Your task to perform on an android device: Open calendar and show me the fourth week of next month Image 0: 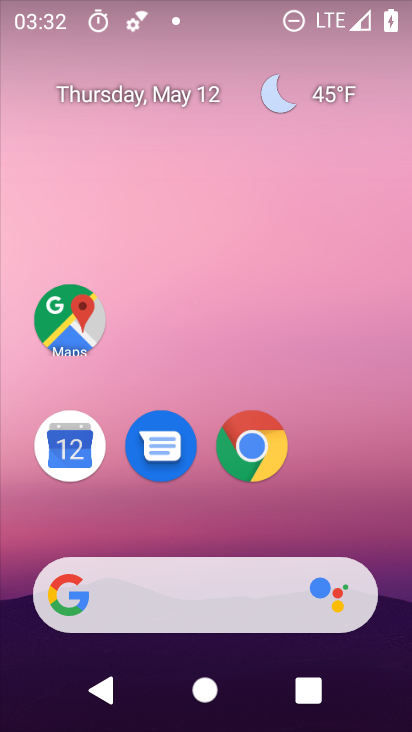
Step 0: drag from (239, 526) to (251, 168)
Your task to perform on an android device: Open calendar and show me the fourth week of next month Image 1: 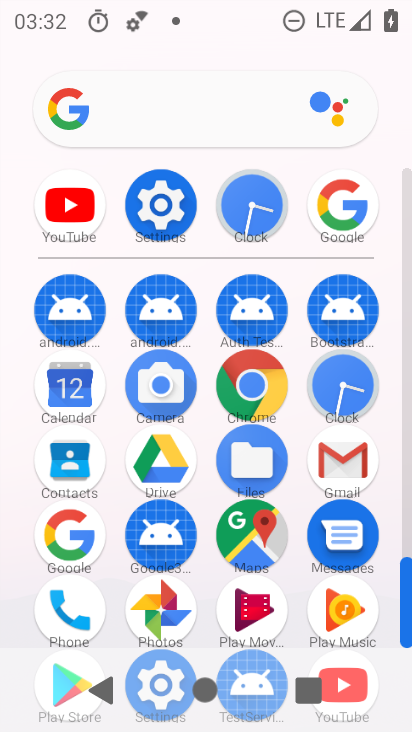
Step 1: click (85, 375)
Your task to perform on an android device: Open calendar and show me the fourth week of next month Image 2: 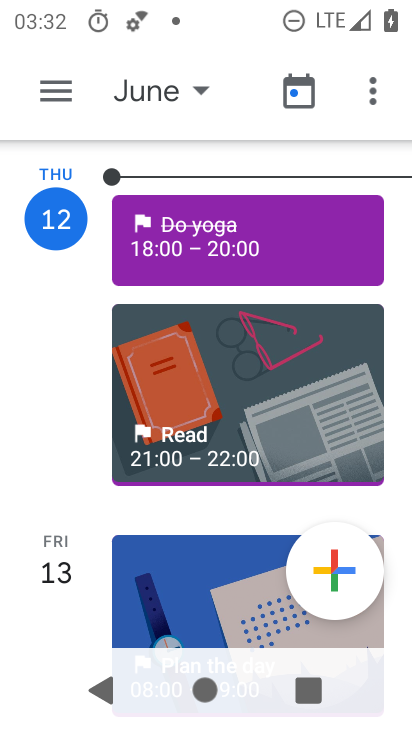
Step 2: click (203, 87)
Your task to perform on an android device: Open calendar and show me the fourth week of next month Image 3: 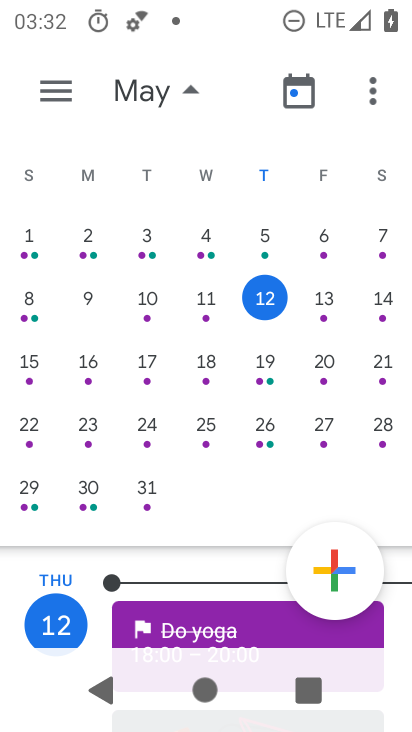
Step 3: drag from (349, 278) to (16, 287)
Your task to perform on an android device: Open calendar and show me the fourth week of next month Image 4: 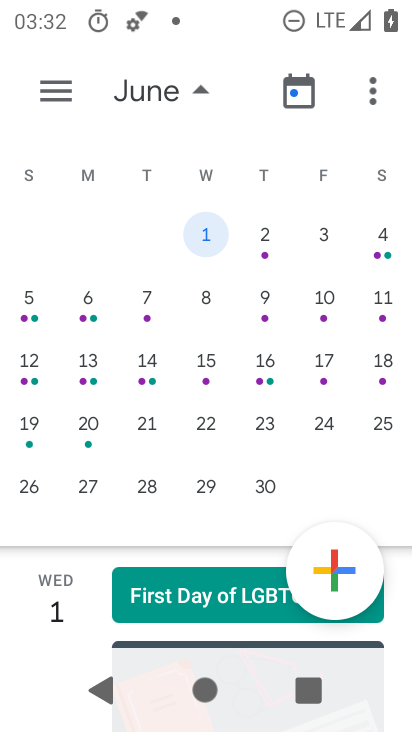
Step 4: click (73, 429)
Your task to perform on an android device: Open calendar and show me the fourth week of next month Image 5: 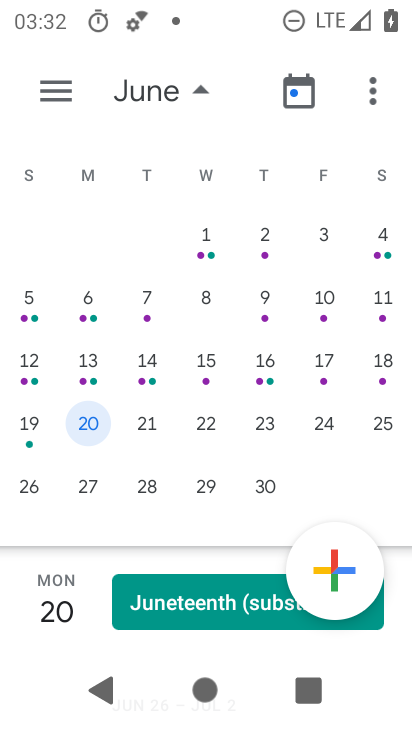
Step 5: click (41, 427)
Your task to perform on an android device: Open calendar and show me the fourth week of next month Image 6: 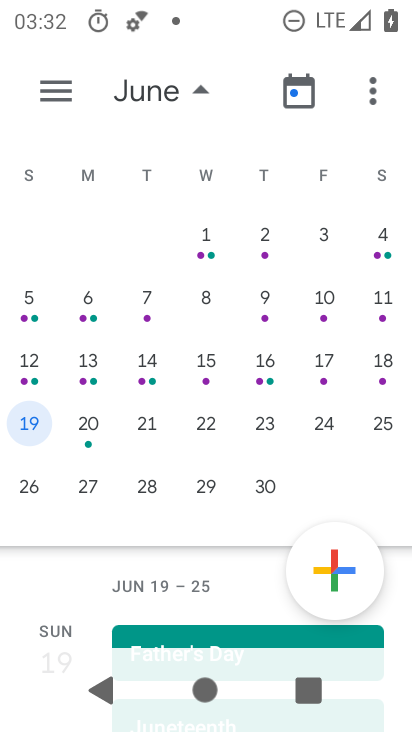
Step 6: task complete